Your task to perform on an android device: move a message to another label in the gmail app Image 0: 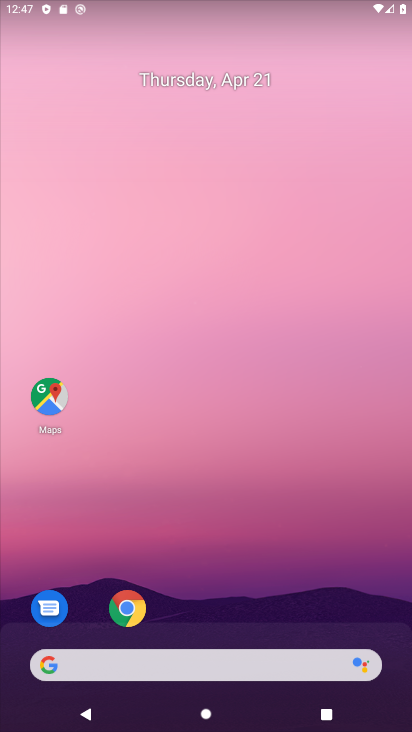
Step 0: drag from (235, 443) to (228, 72)
Your task to perform on an android device: move a message to another label in the gmail app Image 1: 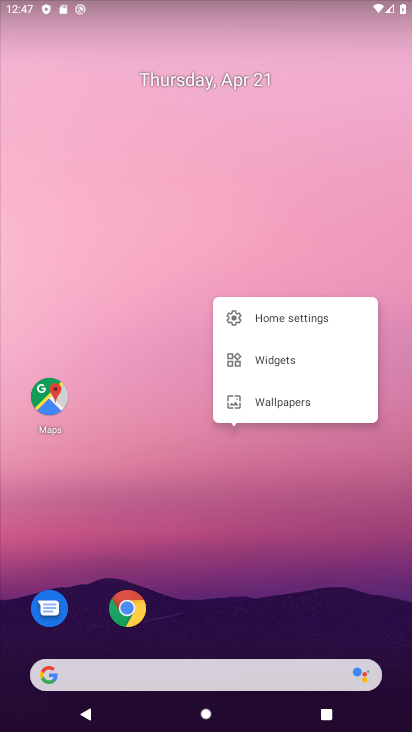
Step 1: drag from (276, 475) to (267, 15)
Your task to perform on an android device: move a message to another label in the gmail app Image 2: 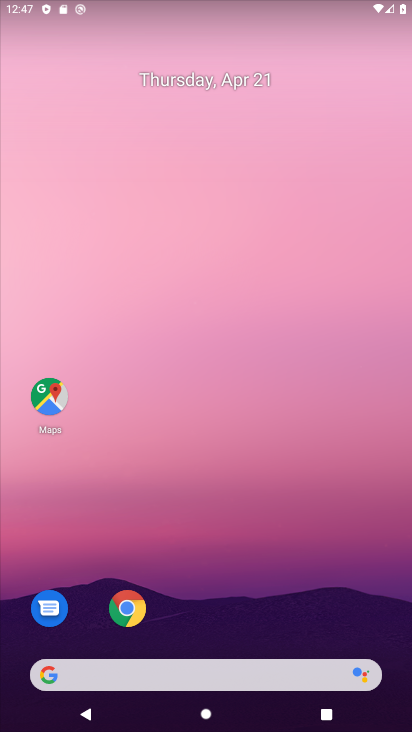
Step 2: drag from (234, 519) to (234, 9)
Your task to perform on an android device: move a message to another label in the gmail app Image 3: 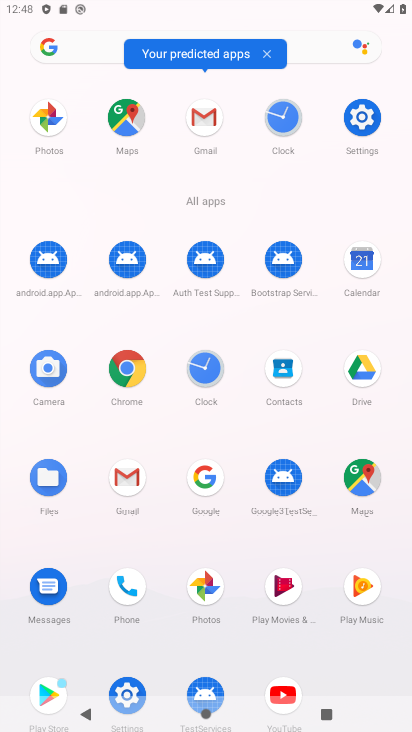
Step 3: click (208, 114)
Your task to perform on an android device: move a message to another label in the gmail app Image 4: 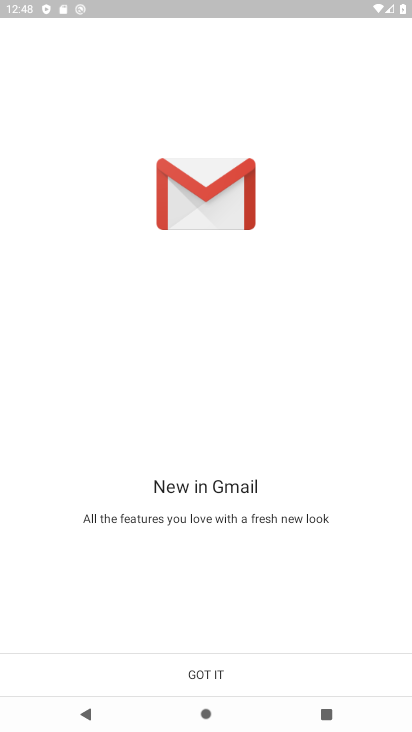
Step 4: click (245, 666)
Your task to perform on an android device: move a message to another label in the gmail app Image 5: 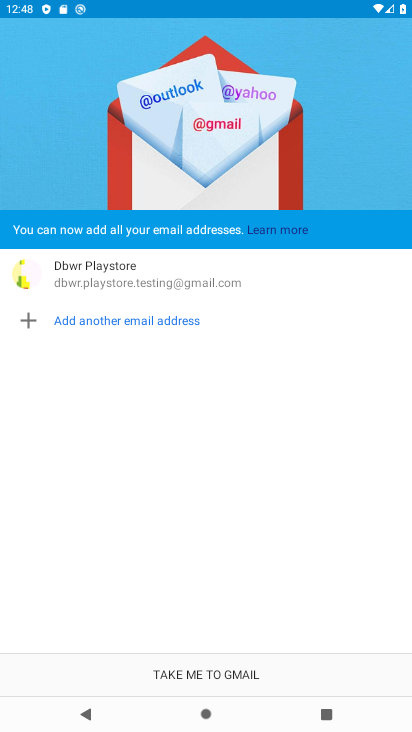
Step 5: click (258, 662)
Your task to perform on an android device: move a message to another label in the gmail app Image 6: 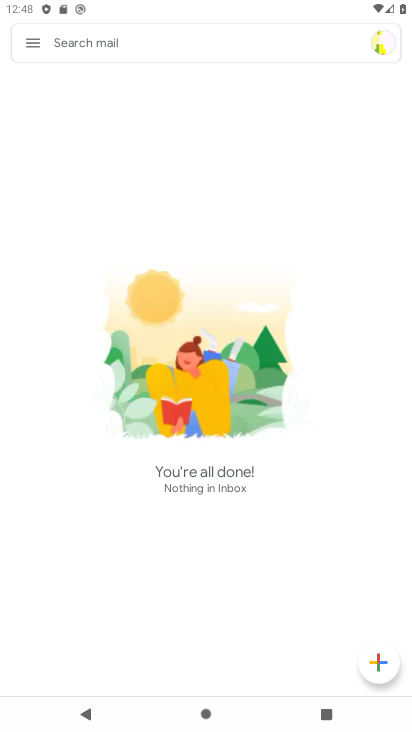
Step 6: click (31, 43)
Your task to perform on an android device: move a message to another label in the gmail app Image 7: 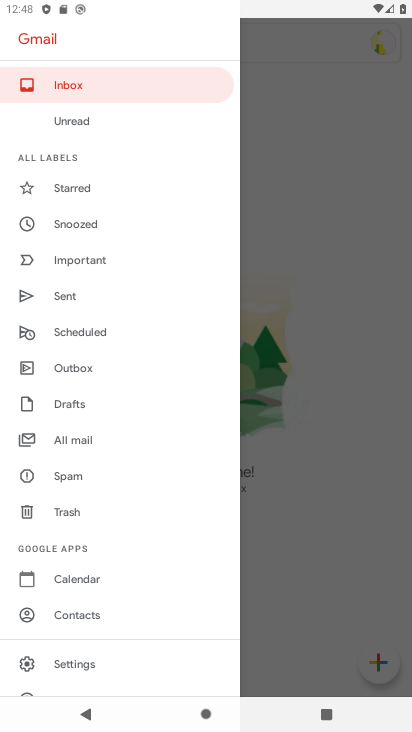
Step 7: click (85, 440)
Your task to perform on an android device: move a message to another label in the gmail app Image 8: 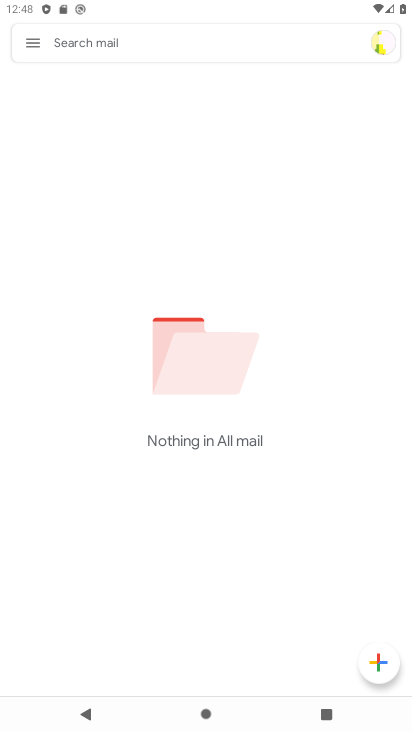
Step 8: task complete